Your task to perform on an android device: Go to Amazon Image 0: 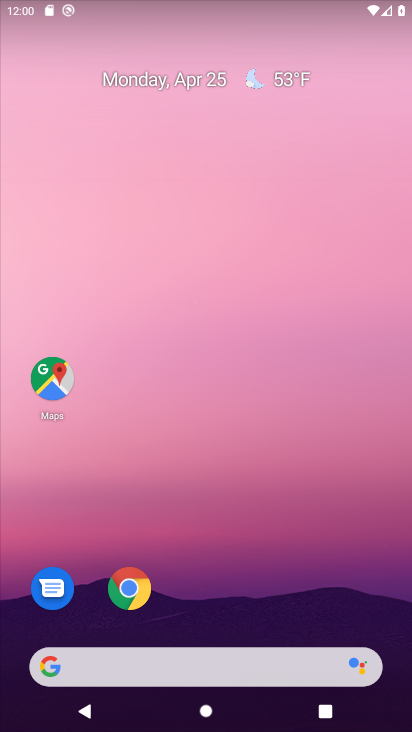
Step 0: click (129, 580)
Your task to perform on an android device: Go to Amazon Image 1: 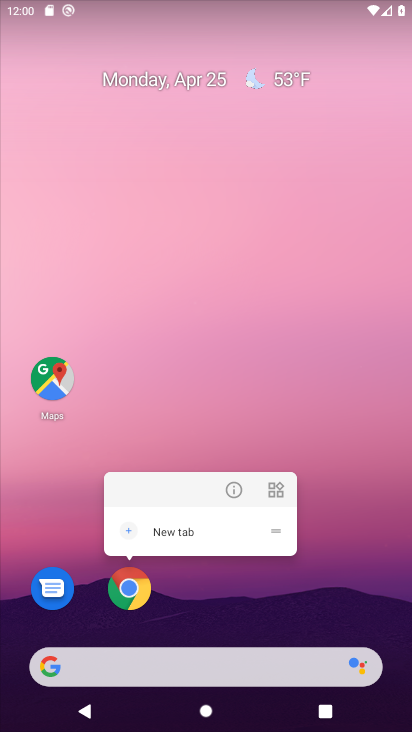
Step 1: click (129, 580)
Your task to perform on an android device: Go to Amazon Image 2: 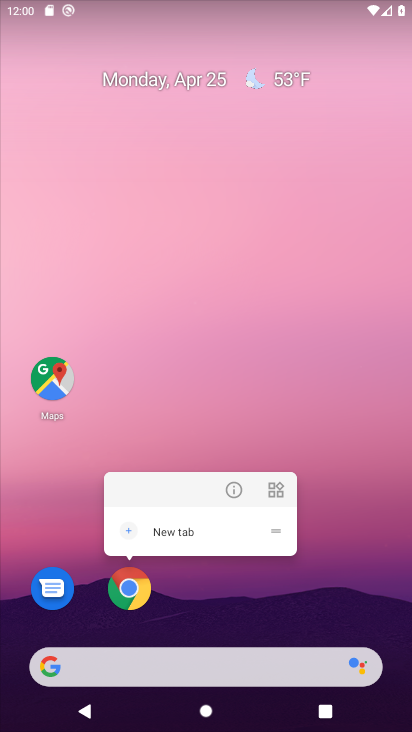
Step 2: click (130, 593)
Your task to perform on an android device: Go to Amazon Image 3: 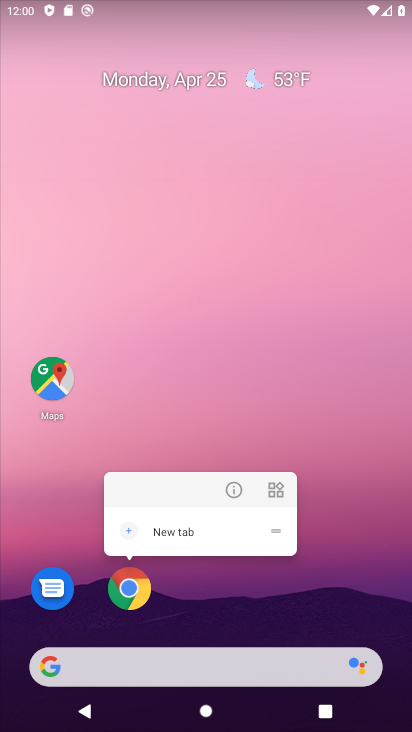
Step 3: click (130, 593)
Your task to perform on an android device: Go to Amazon Image 4: 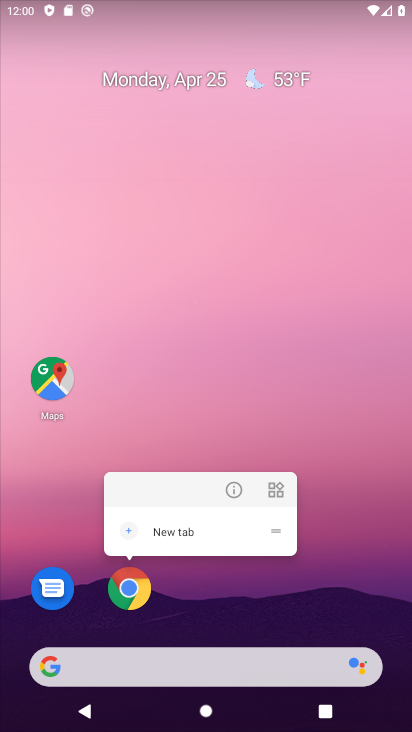
Step 4: click (130, 593)
Your task to perform on an android device: Go to Amazon Image 5: 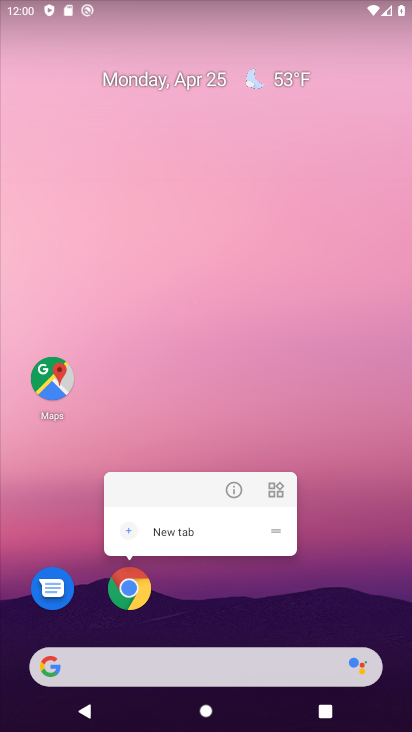
Step 5: click (130, 593)
Your task to perform on an android device: Go to Amazon Image 6: 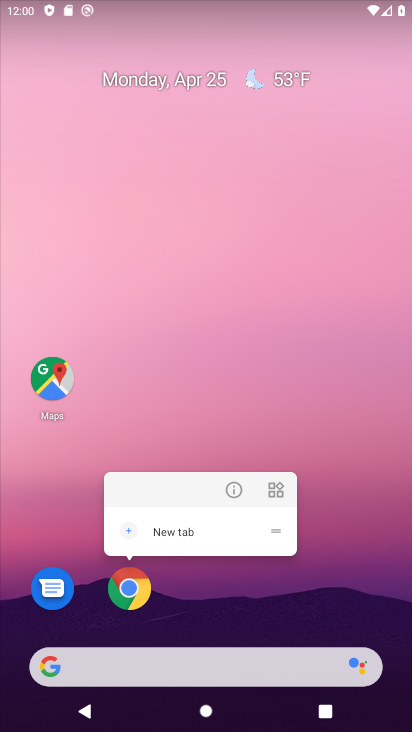
Step 6: click (130, 593)
Your task to perform on an android device: Go to Amazon Image 7: 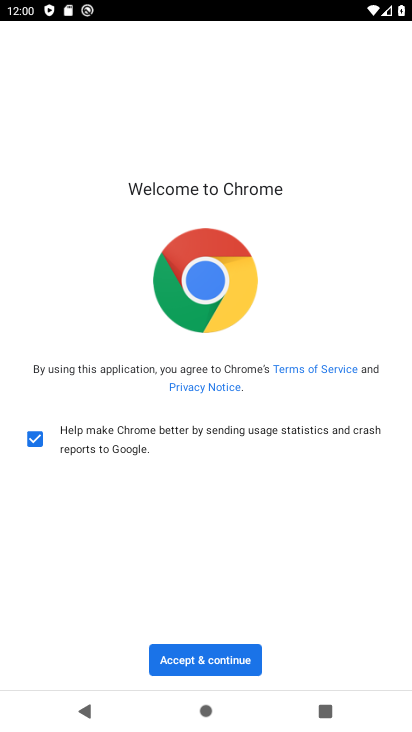
Step 7: click (181, 657)
Your task to perform on an android device: Go to Amazon Image 8: 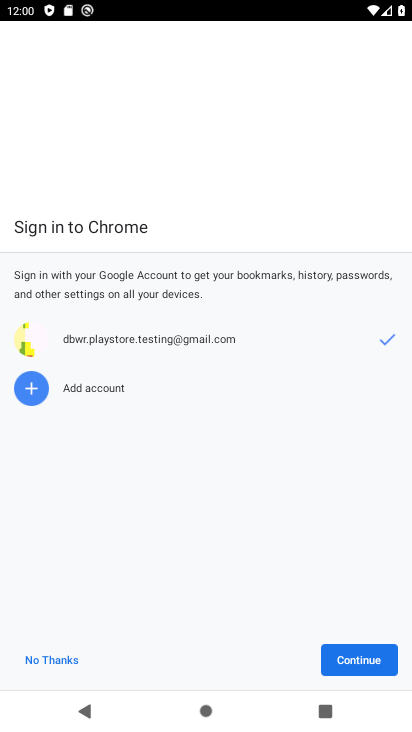
Step 8: click (359, 644)
Your task to perform on an android device: Go to Amazon Image 9: 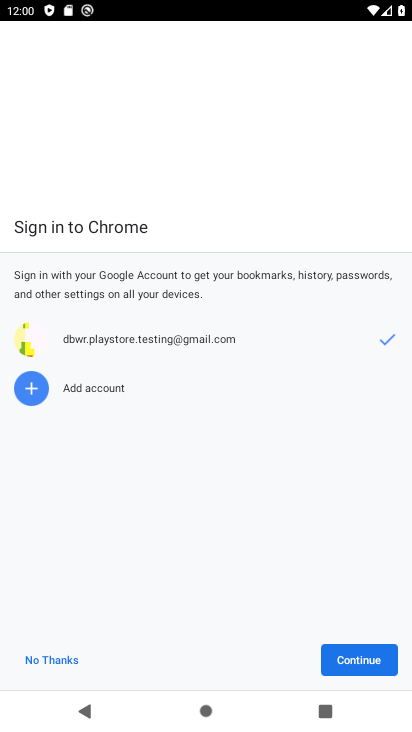
Step 9: click (360, 651)
Your task to perform on an android device: Go to Amazon Image 10: 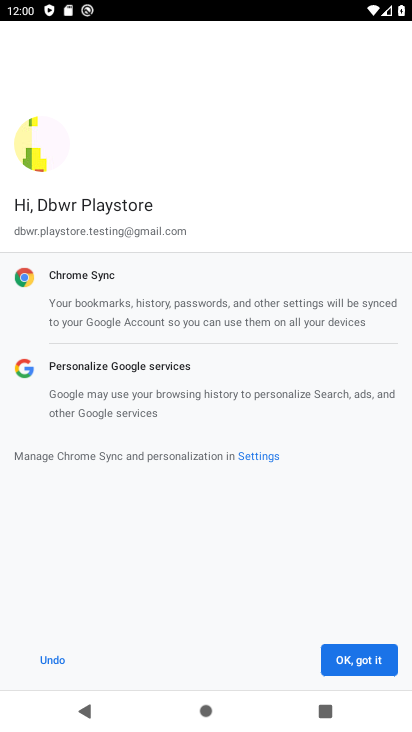
Step 10: click (360, 651)
Your task to perform on an android device: Go to Amazon Image 11: 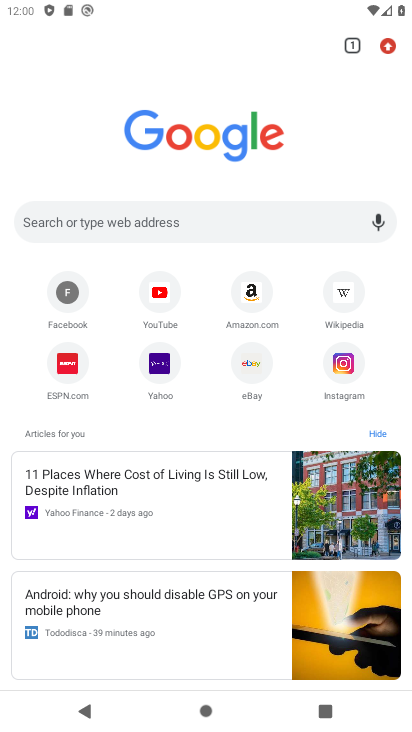
Step 11: click (245, 310)
Your task to perform on an android device: Go to Amazon Image 12: 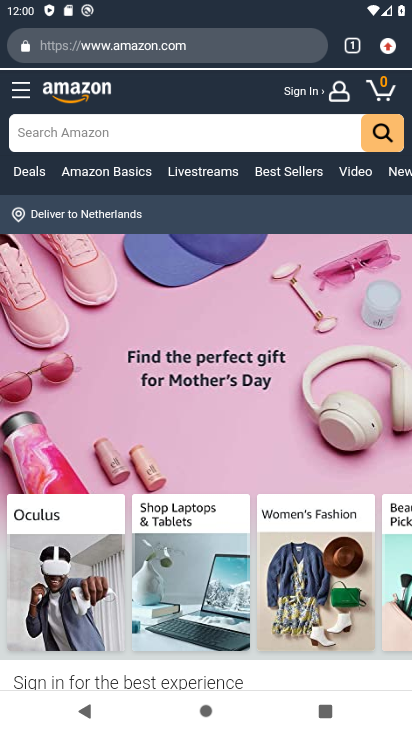
Step 12: task complete